Your task to perform on an android device: Open Youtube and go to the subscriptions tab Image 0: 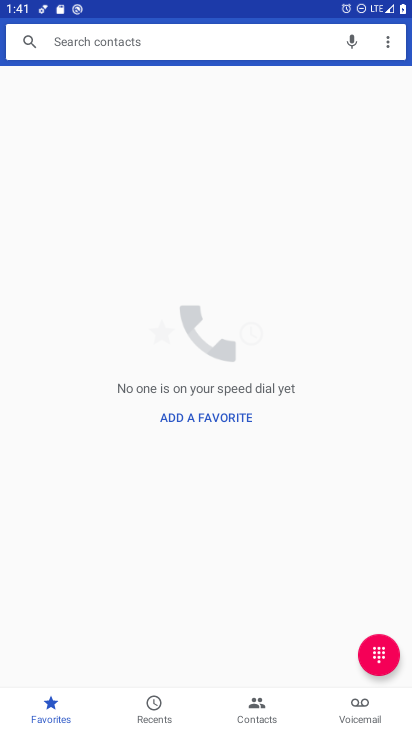
Step 0: press home button
Your task to perform on an android device: Open Youtube and go to the subscriptions tab Image 1: 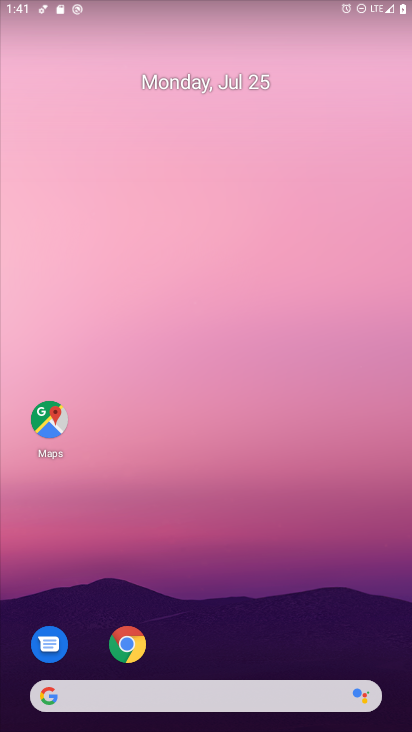
Step 1: drag from (254, 636) to (320, 42)
Your task to perform on an android device: Open Youtube and go to the subscriptions tab Image 2: 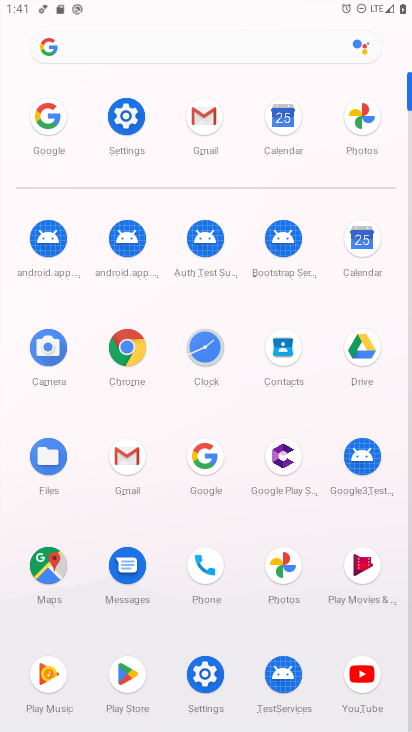
Step 2: click (364, 671)
Your task to perform on an android device: Open Youtube and go to the subscriptions tab Image 3: 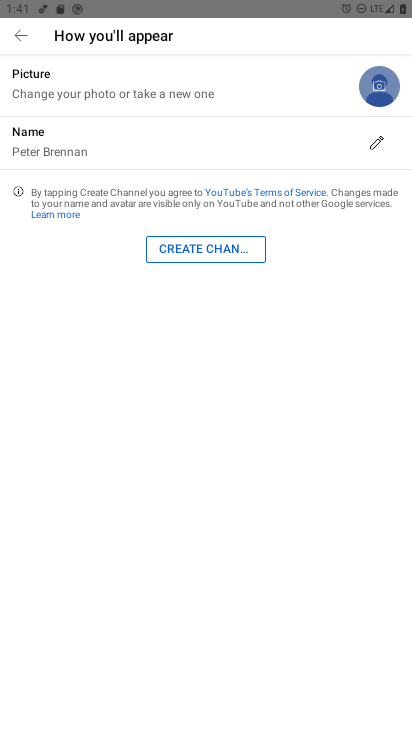
Step 3: click (19, 32)
Your task to perform on an android device: Open Youtube and go to the subscriptions tab Image 4: 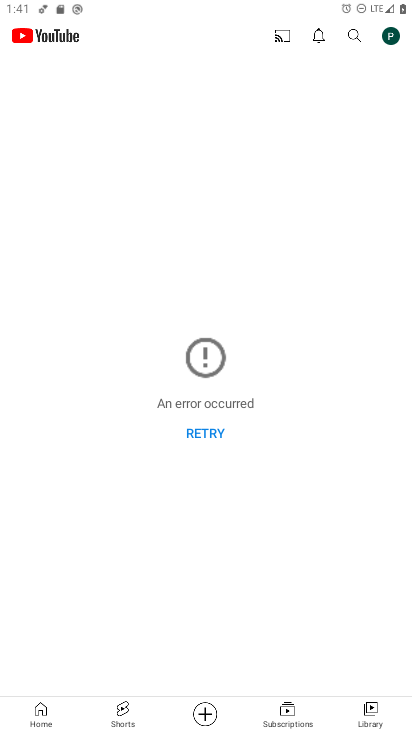
Step 4: click (293, 712)
Your task to perform on an android device: Open Youtube and go to the subscriptions tab Image 5: 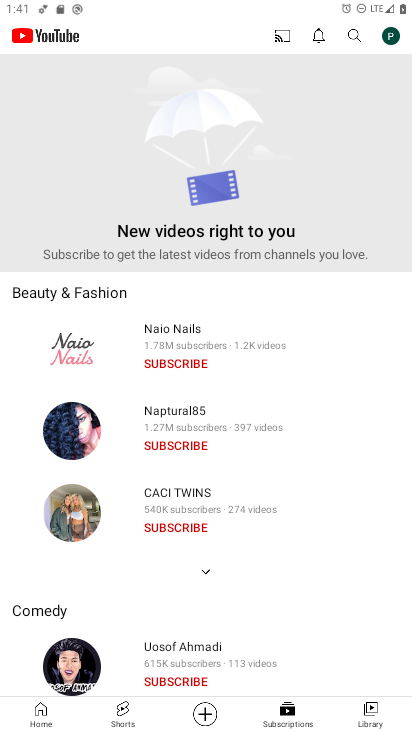
Step 5: task complete